Your task to perform on an android device: See recent photos Image 0: 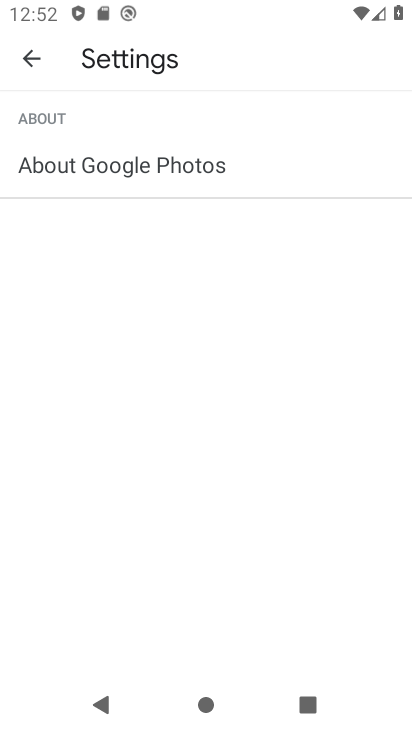
Step 0: press home button
Your task to perform on an android device: See recent photos Image 1: 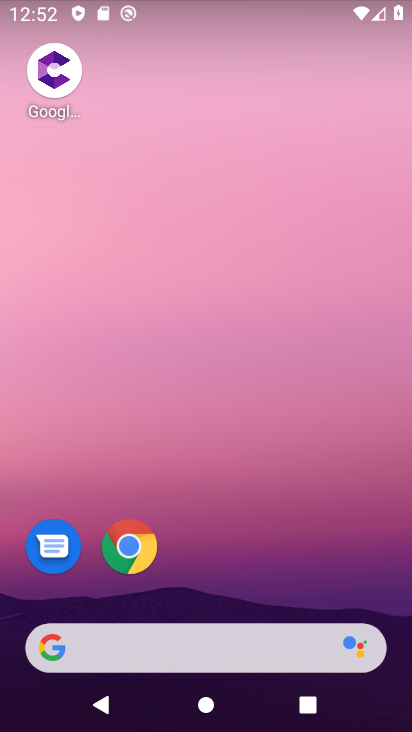
Step 1: drag from (244, 533) to (273, 9)
Your task to perform on an android device: See recent photos Image 2: 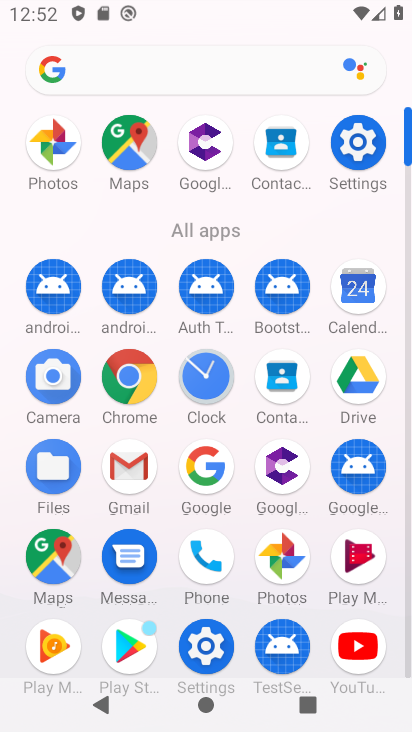
Step 2: click (280, 557)
Your task to perform on an android device: See recent photos Image 3: 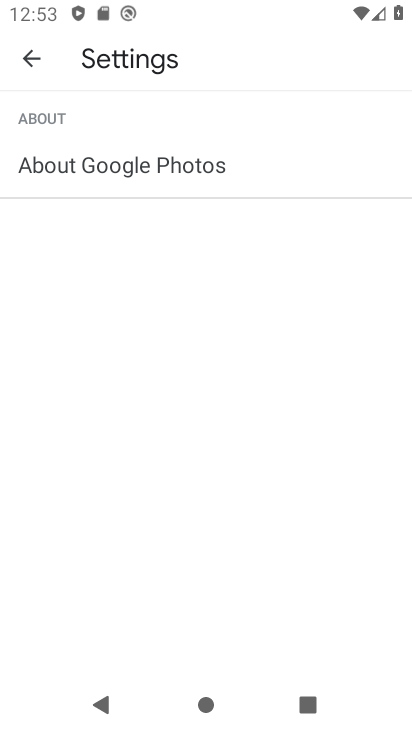
Step 3: press back button
Your task to perform on an android device: See recent photos Image 4: 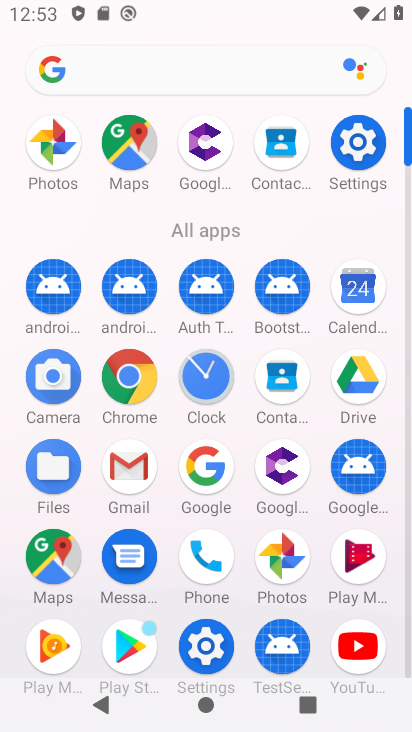
Step 4: click (292, 547)
Your task to perform on an android device: See recent photos Image 5: 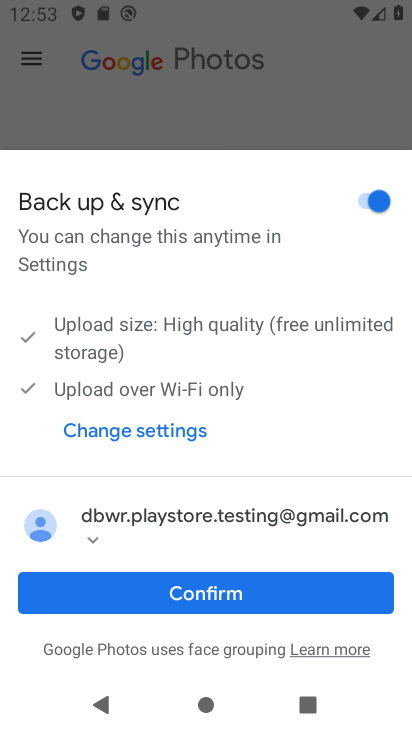
Step 5: click (180, 604)
Your task to perform on an android device: See recent photos Image 6: 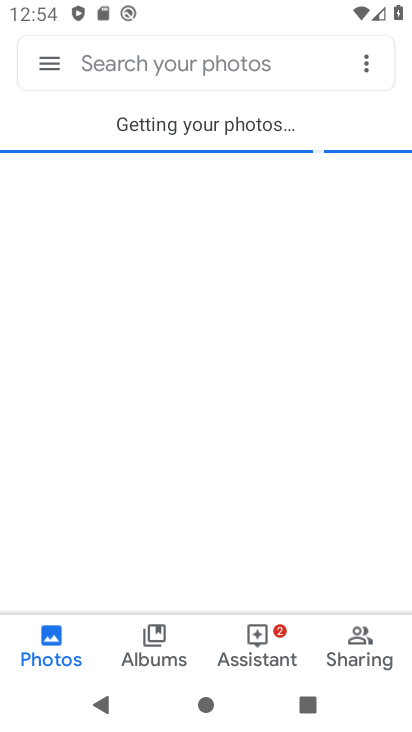
Step 6: task complete